Your task to perform on an android device: Open calendar and show me the second week of next month Image 0: 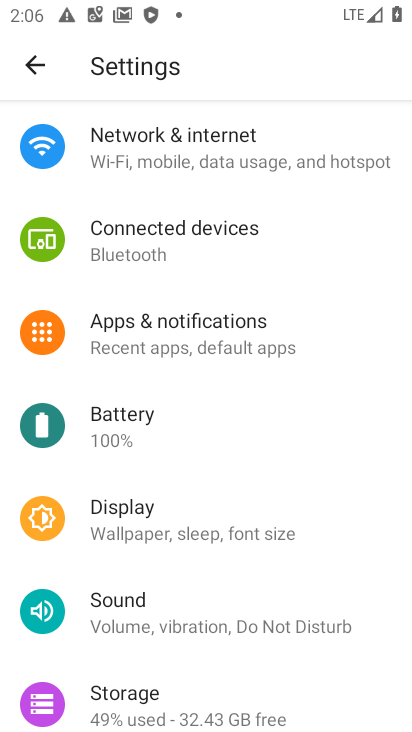
Step 0: press home button
Your task to perform on an android device: Open calendar and show me the second week of next month Image 1: 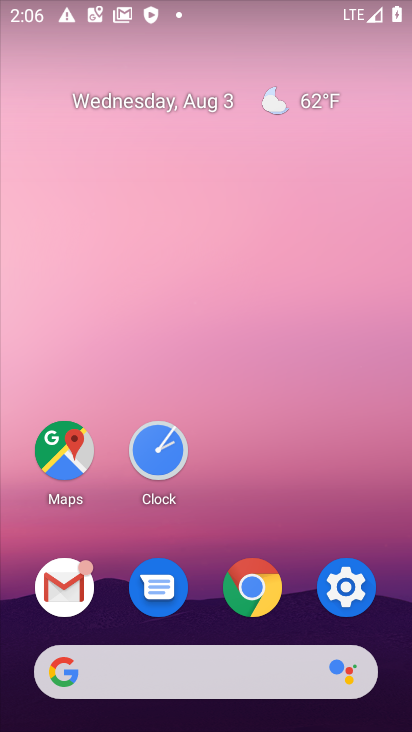
Step 1: drag from (274, 517) to (175, 147)
Your task to perform on an android device: Open calendar and show me the second week of next month Image 2: 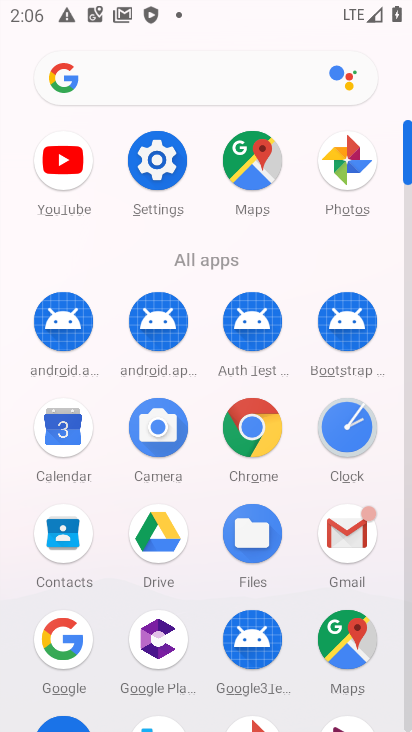
Step 2: click (70, 424)
Your task to perform on an android device: Open calendar and show me the second week of next month Image 3: 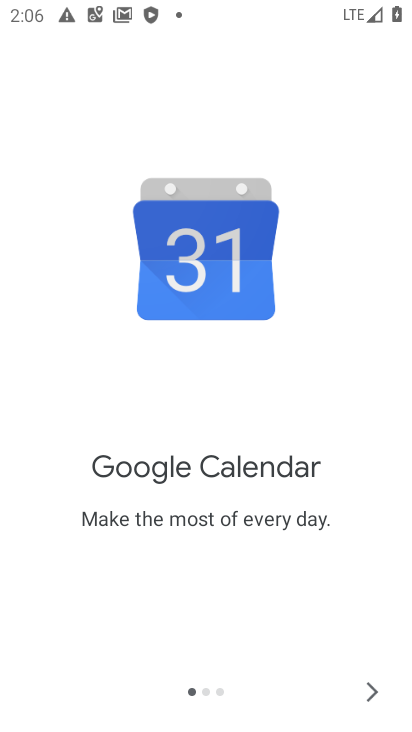
Step 3: click (376, 687)
Your task to perform on an android device: Open calendar and show me the second week of next month Image 4: 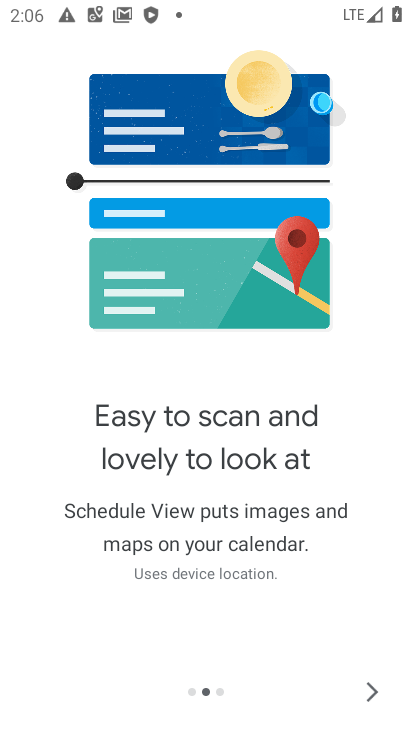
Step 4: click (369, 693)
Your task to perform on an android device: Open calendar and show me the second week of next month Image 5: 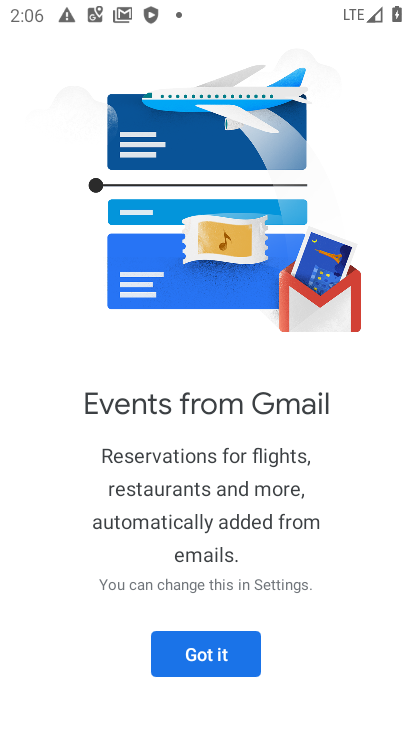
Step 5: click (206, 651)
Your task to perform on an android device: Open calendar and show me the second week of next month Image 6: 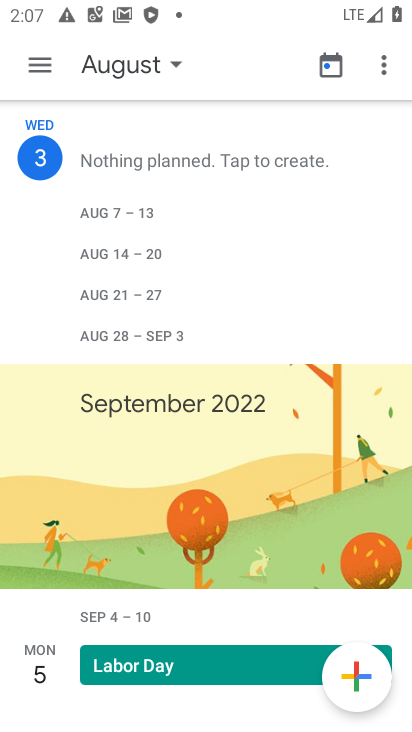
Step 6: click (40, 62)
Your task to perform on an android device: Open calendar and show me the second week of next month Image 7: 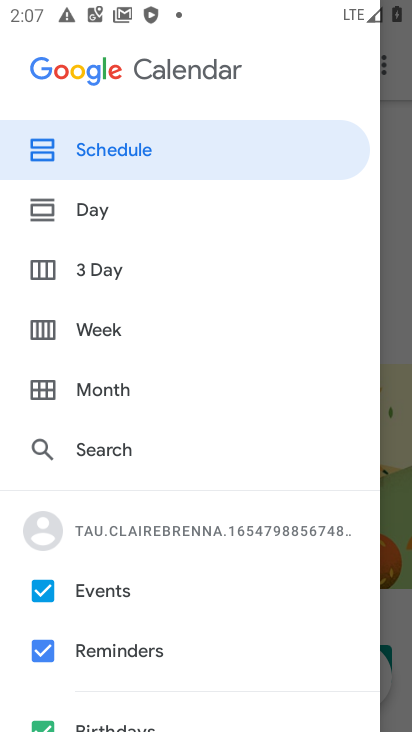
Step 7: click (96, 317)
Your task to perform on an android device: Open calendar and show me the second week of next month Image 8: 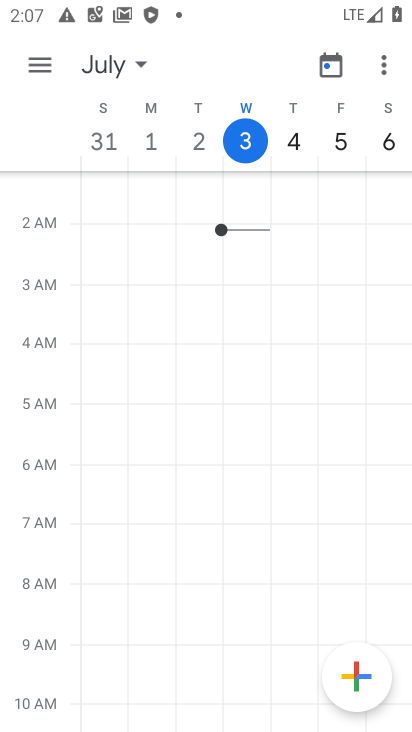
Step 8: click (143, 61)
Your task to perform on an android device: Open calendar and show me the second week of next month Image 9: 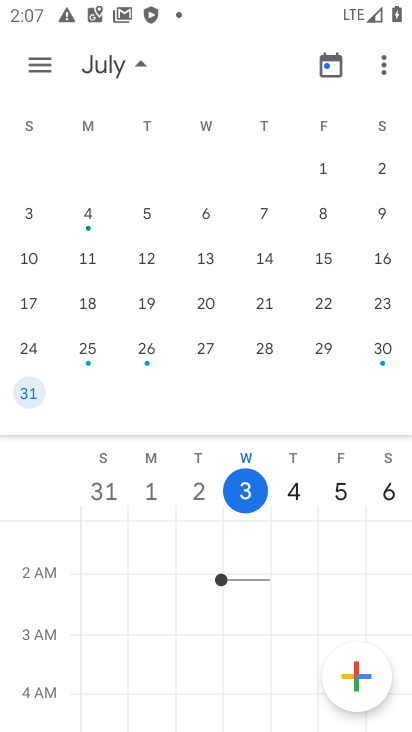
Step 9: drag from (389, 266) to (11, 191)
Your task to perform on an android device: Open calendar and show me the second week of next month Image 10: 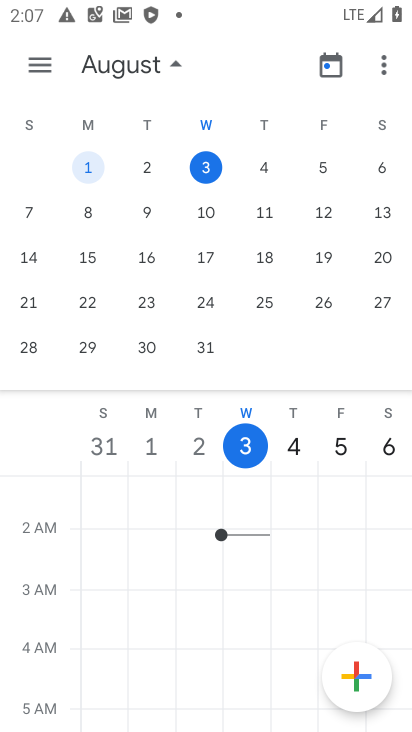
Step 10: drag from (374, 237) to (7, 171)
Your task to perform on an android device: Open calendar and show me the second week of next month Image 11: 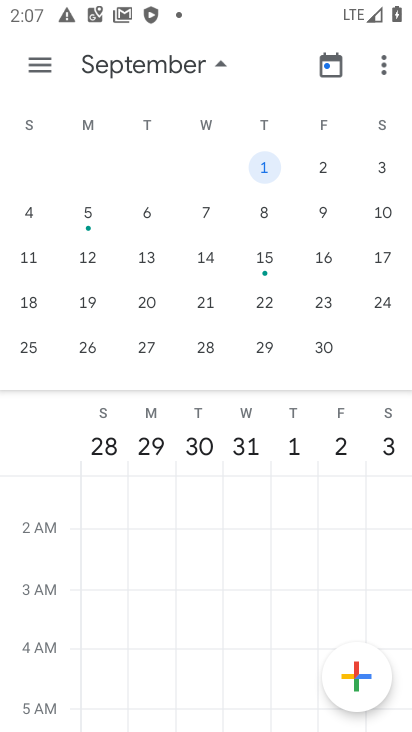
Step 11: click (207, 211)
Your task to perform on an android device: Open calendar and show me the second week of next month Image 12: 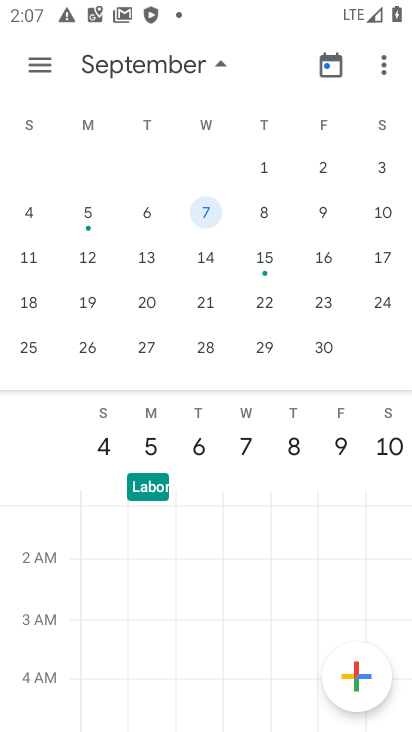
Step 12: task complete